Your task to perform on an android device: Is it going to rain tomorrow? Image 0: 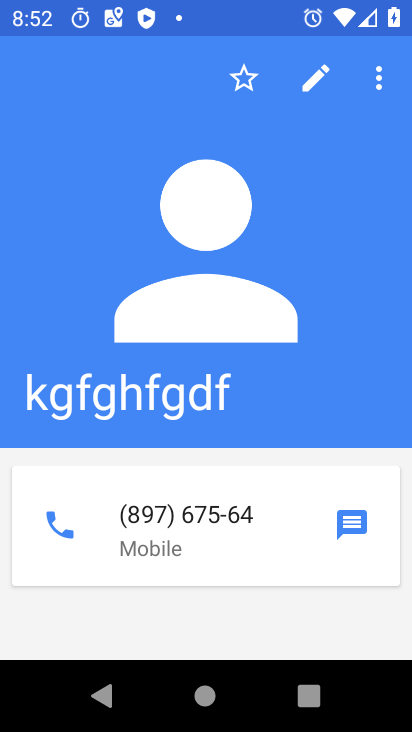
Step 0: press home button
Your task to perform on an android device: Is it going to rain tomorrow? Image 1: 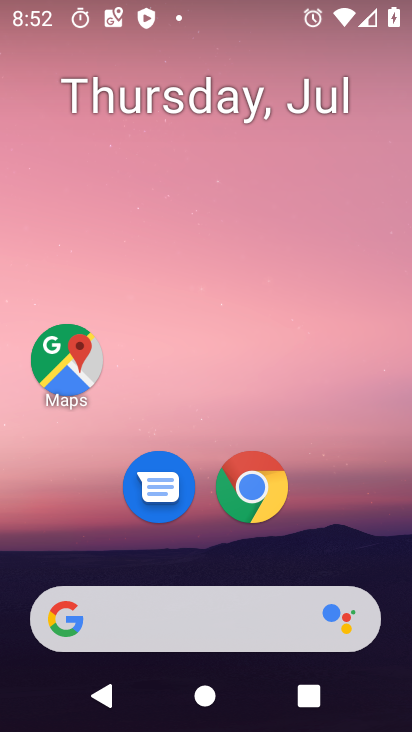
Step 1: drag from (273, 638) to (290, 56)
Your task to perform on an android device: Is it going to rain tomorrow? Image 2: 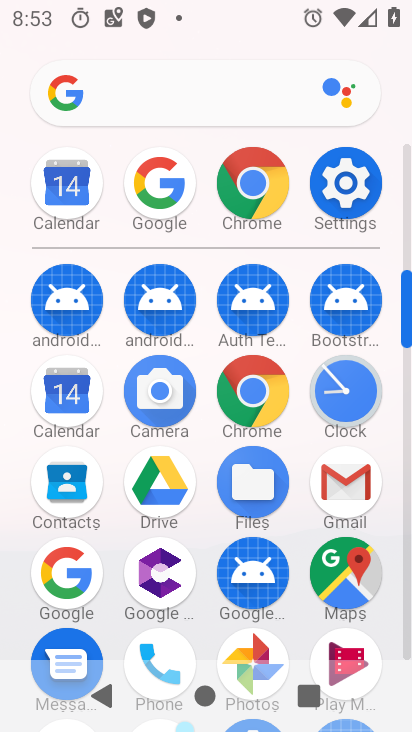
Step 2: click (74, 585)
Your task to perform on an android device: Is it going to rain tomorrow? Image 3: 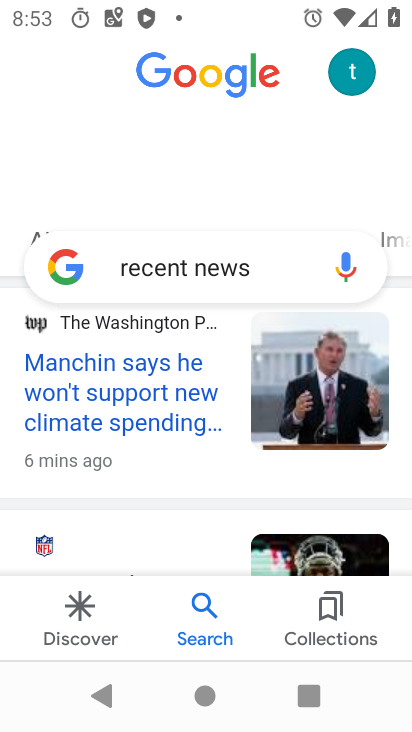
Step 3: click (274, 261)
Your task to perform on an android device: Is it going to rain tomorrow? Image 4: 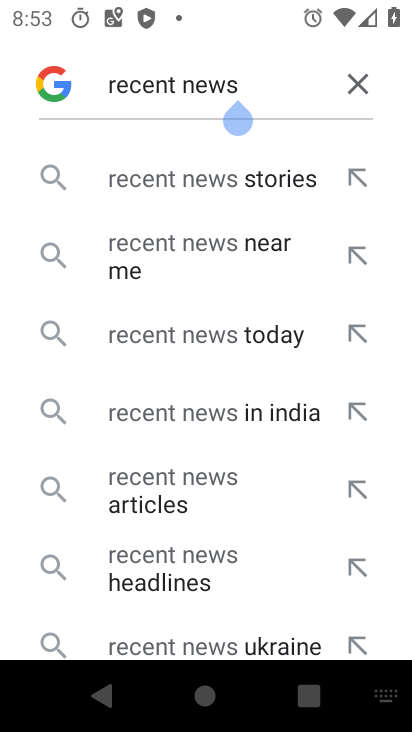
Step 4: click (358, 100)
Your task to perform on an android device: Is it going to rain tomorrow? Image 5: 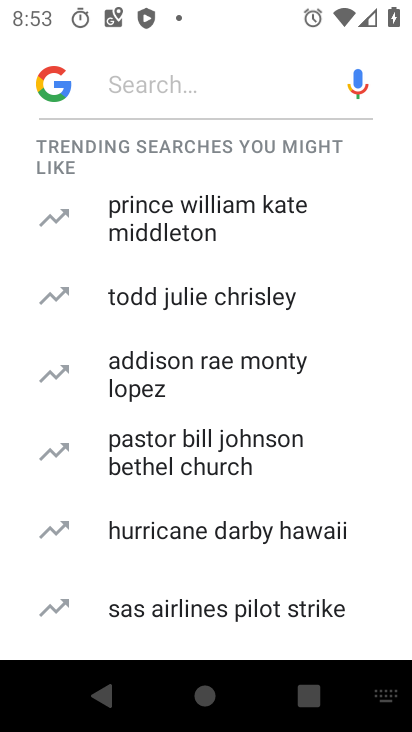
Step 5: type "weather"
Your task to perform on an android device: Is it going to rain tomorrow? Image 6: 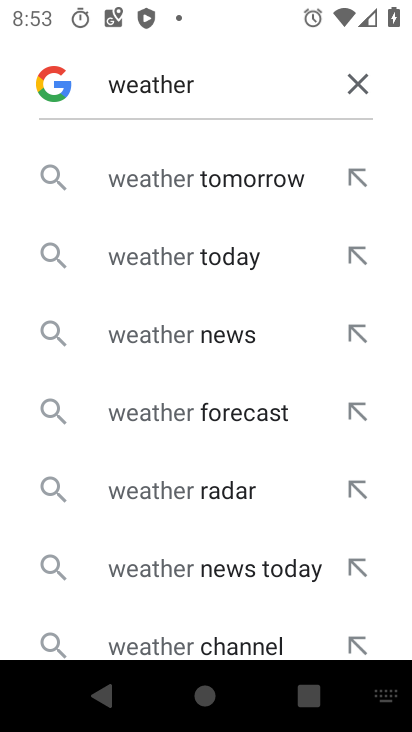
Step 6: click (248, 189)
Your task to perform on an android device: Is it going to rain tomorrow? Image 7: 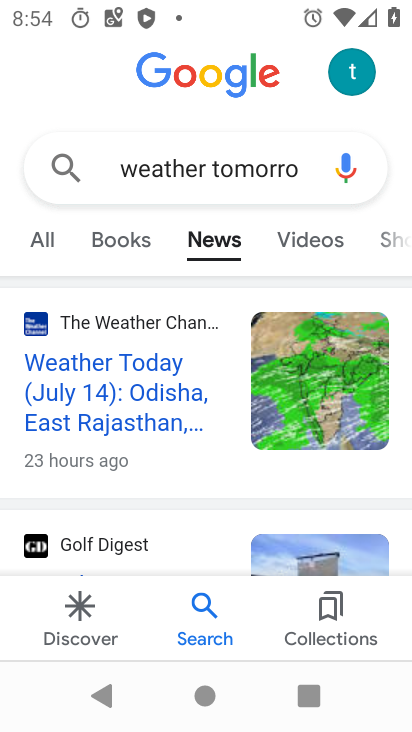
Step 7: click (40, 240)
Your task to perform on an android device: Is it going to rain tomorrow? Image 8: 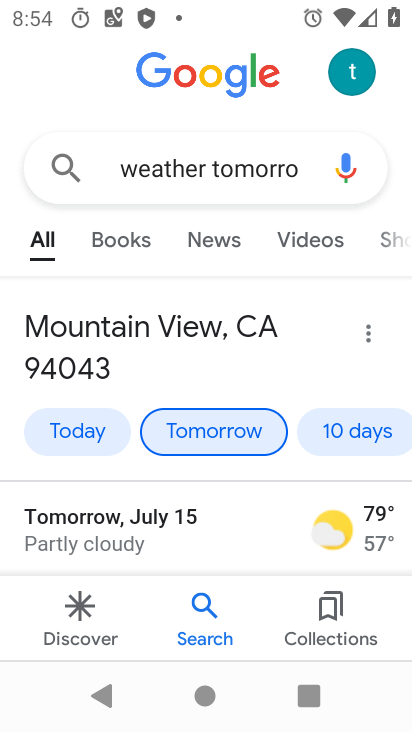
Step 8: task complete